Your task to perform on an android device: What's on my calendar tomorrow? Image 0: 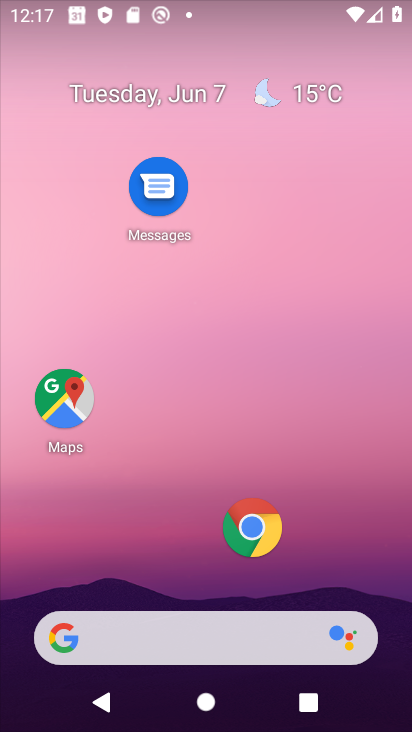
Step 0: drag from (251, 419) to (269, 155)
Your task to perform on an android device: What's on my calendar tomorrow? Image 1: 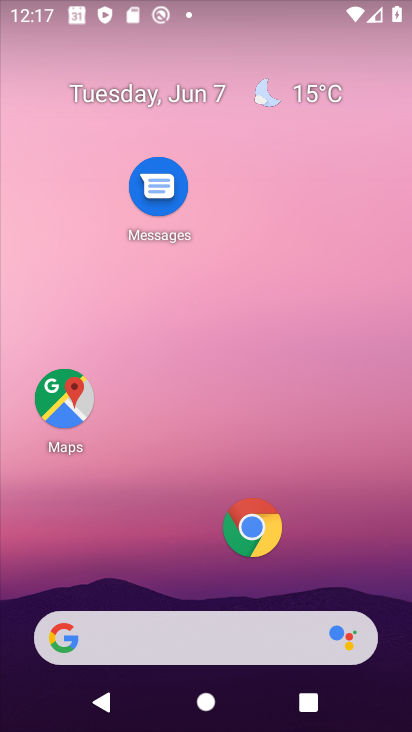
Step 1: drag from (236, 600) to (286, 123)
Your task to perform on an android device: What's on my calendar tomorrow? Image 2: 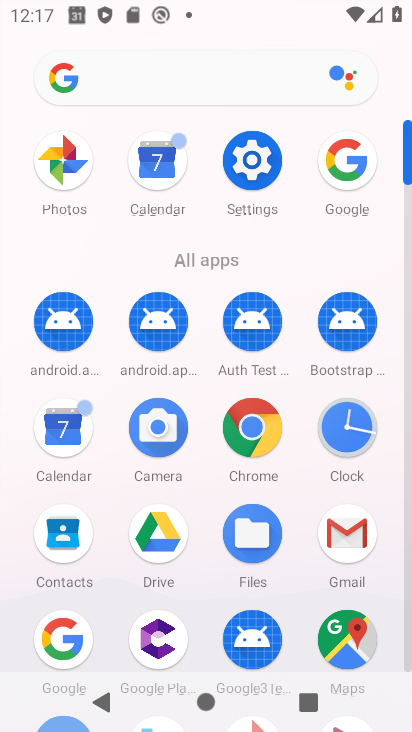
Step 2: click (43, 435)
Your task to perform on an android device: What's on my calendar tomorrow? Image 3: 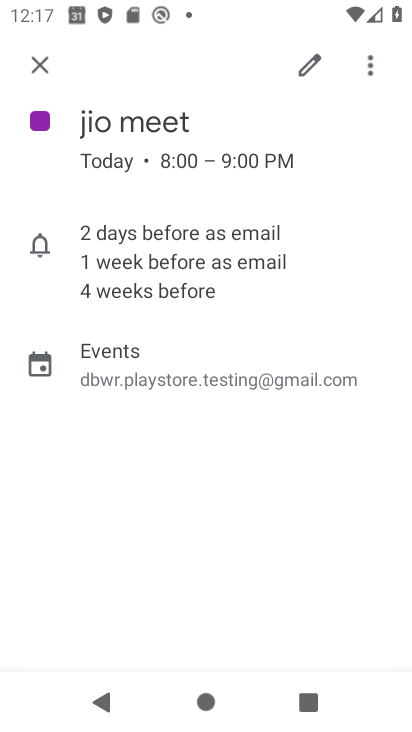
Step 3: click (52, 58)
Your task to perform on an android device: What's on my calendar tomorrow? Image 4: 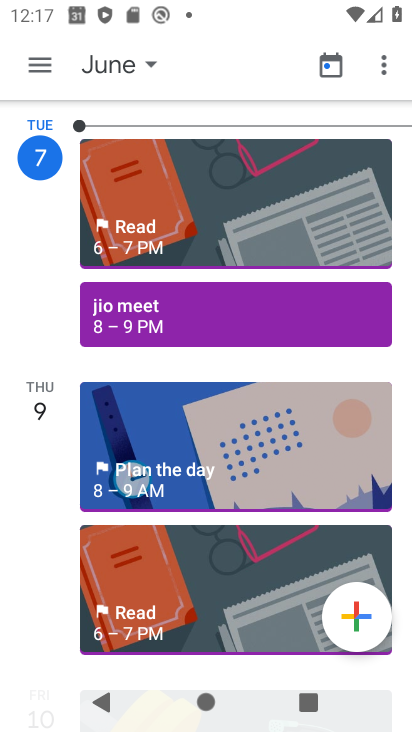
Step 4: click (186, 222)
Your task to perform on an android device: What's on my calendar tomorrow? Image 5: 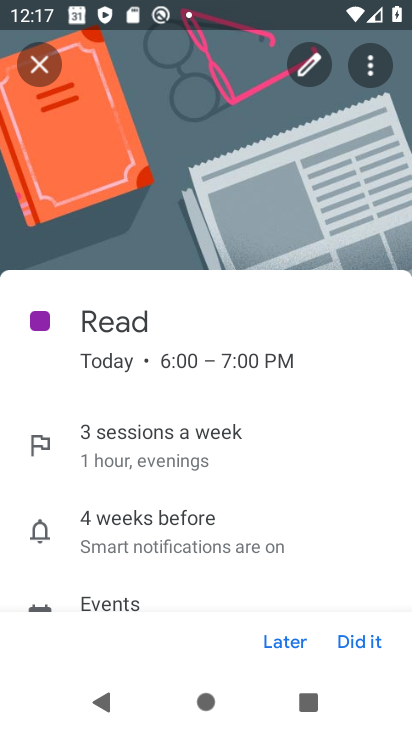
Step 5: task complete